Your task to perform on an android device: Toggle the flashlight Image 0: 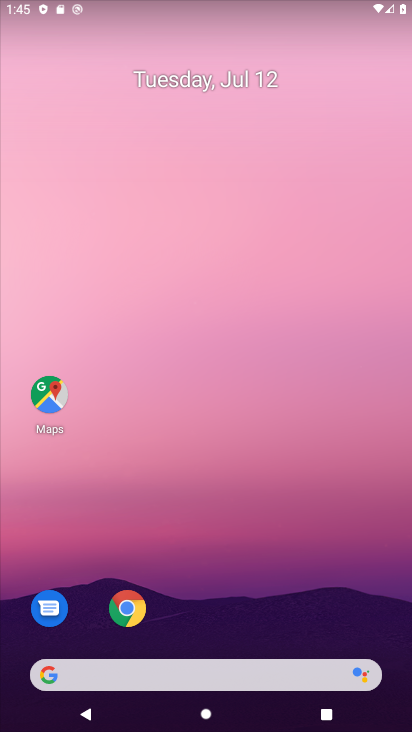
Step 0: drag from (226, 118) to (273, 42)
Your task to perform on an android device: Toggle the flashlight Image 1: 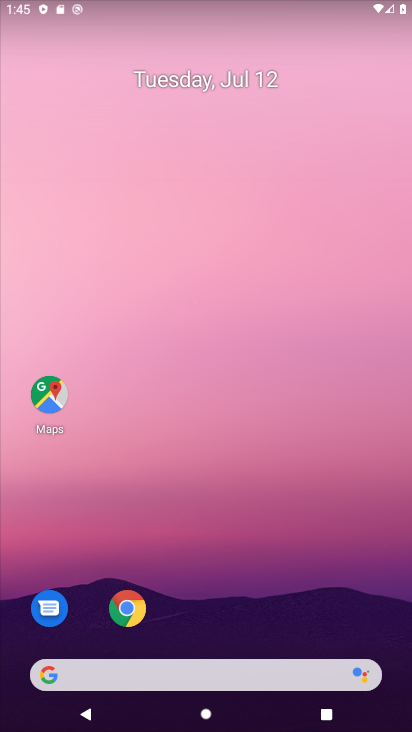
Step 1: task complete